Your task to perform on an android device: Open accessibility settings Image 0: 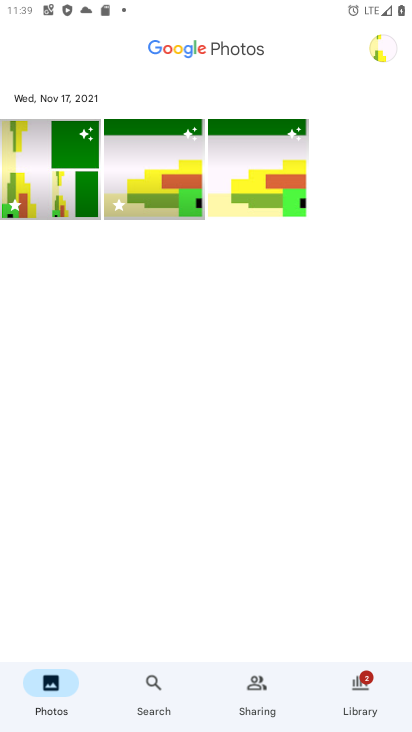
Step 0: press home button
Your task to perform on an android device: Open accessibility settings Image 1: 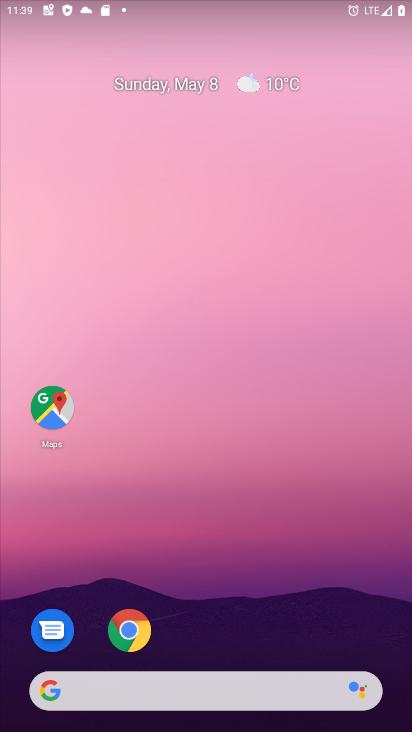
Step 1: drag from (329, 625) to (289, 90)
Your task to perform on an android device: Open accessibility settings Image 2: 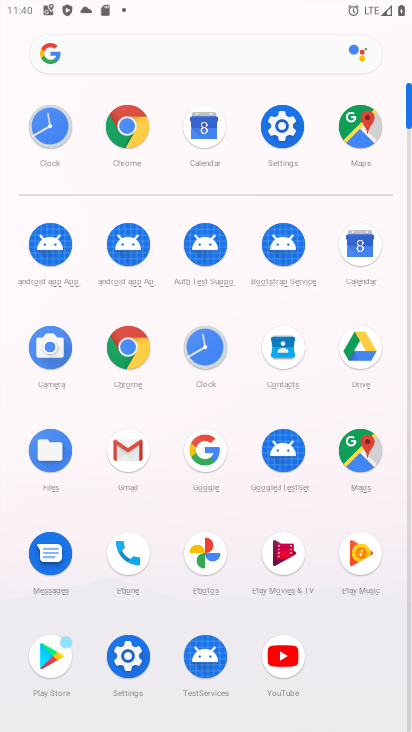
Step 2: click (128, 662)
Your task to perform on an android device: Open accessibility settings Image 3: 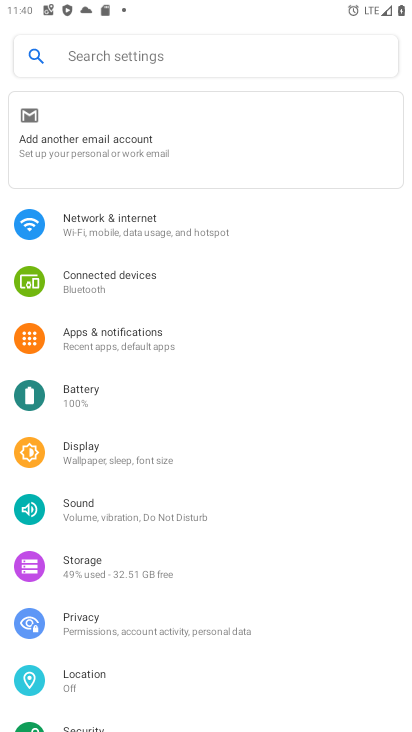
Step 3: drag from (128, 662) to (212, 228)
Your task to perform on an android device: Open accessibility settings Image 4: 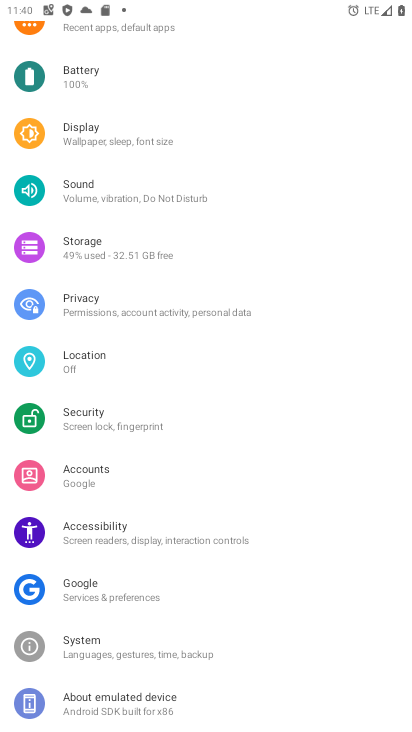
Step 4: click (126, 519)
Your task to perform on an android device: Open accessibility settings Image 5: 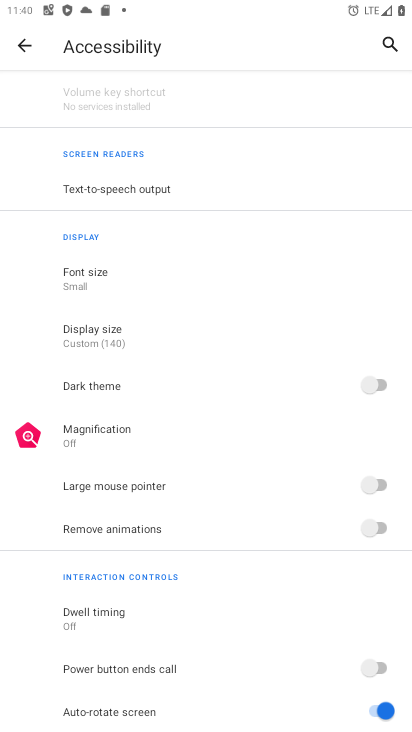
Step 5: task complete